Your task to perform on an android device: Search for pizza restaurants on Maps Image 0: 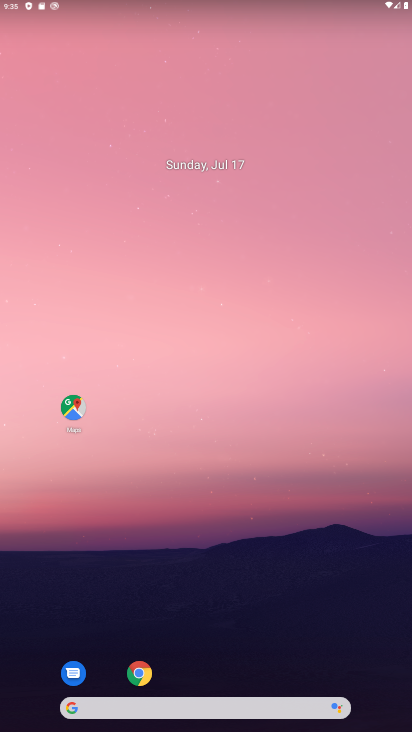
Step 0: drag from (222, 651) to (214, 116)
Your task to perform on an android device: Search for pizza restaurants on Maps Image 1: 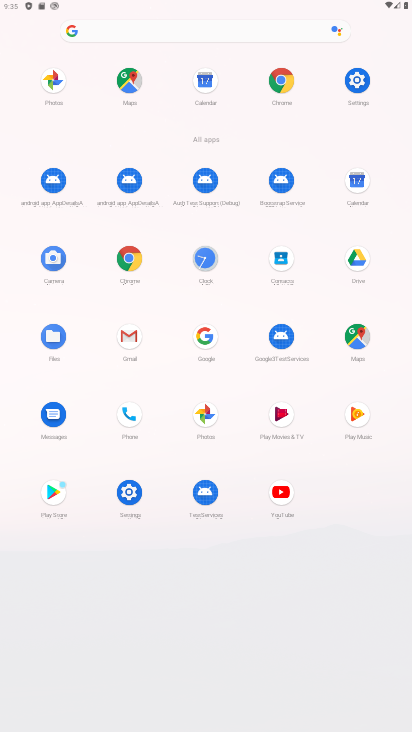
Step 1: click (355, 340)
Your task to perform on an android device: Search for pizza restaurants on Maps Image 2: 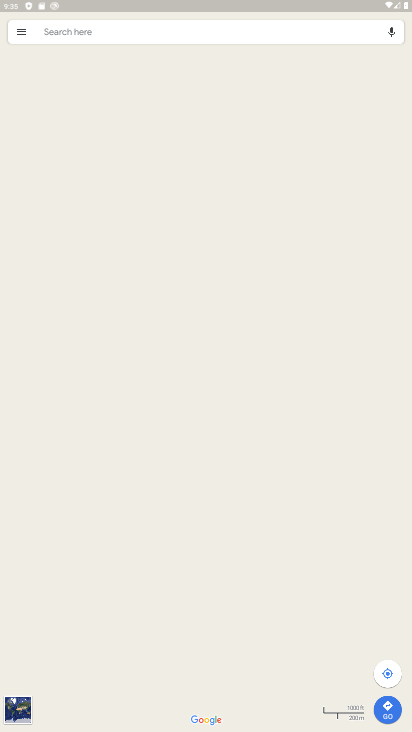
Step 2: click (213, 35)
Your task to perform on an android device: Search for pizza restaurants on Maps Image 3: 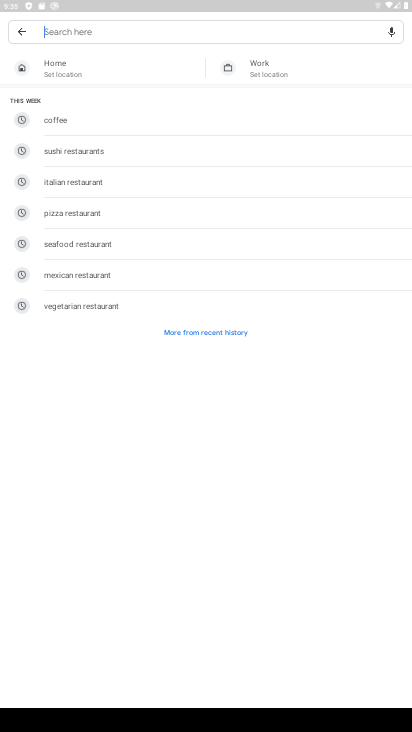
Step 3: type "pizza restaurents"
Your task to perform on an android device: Search for pizza restaurants on Maps Image 4: 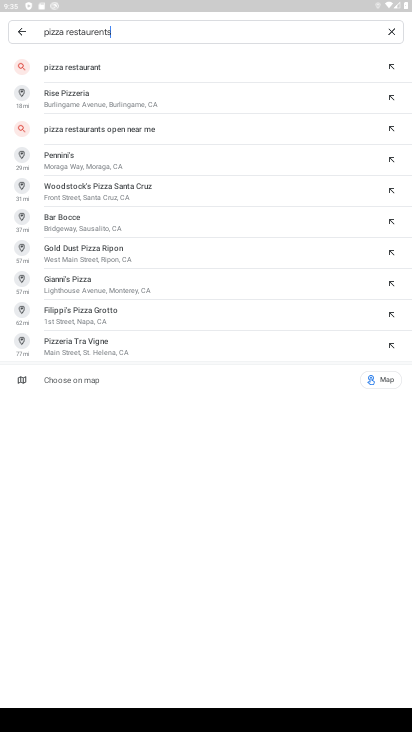
Step 4: click (89, 70)
Your task to perform on an android device: Search for pizza restaurants on Maps Image 5: 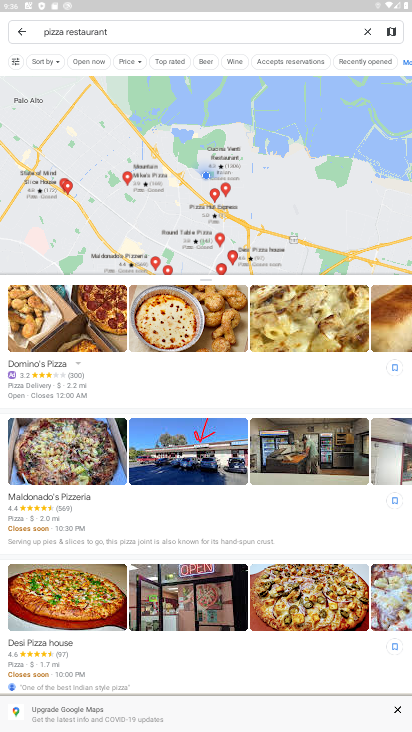
Step 5: task complete